Your task to perform on an android device: allow cookies in the chrome app Image 0: 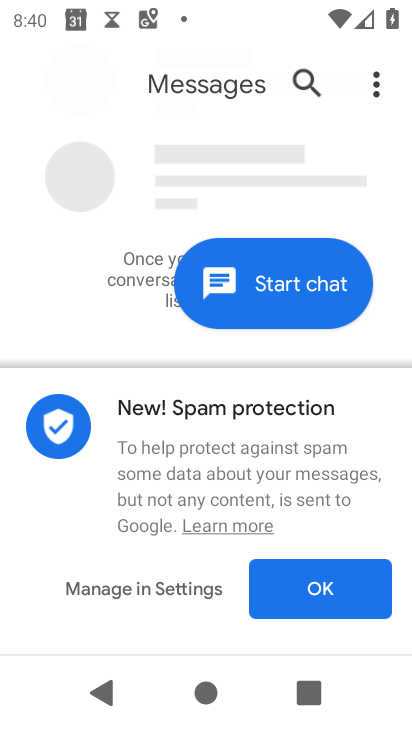
Step 0: press home button
Your task to perform on an android device: allow cookies in the chrome app Image 1: 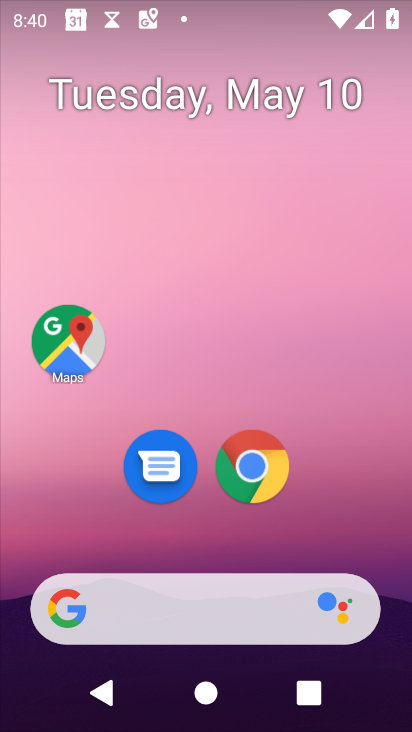
Step 1: click (256, 460)
Your task to perform on an android device: allow cookies in the chrome app Image 2: 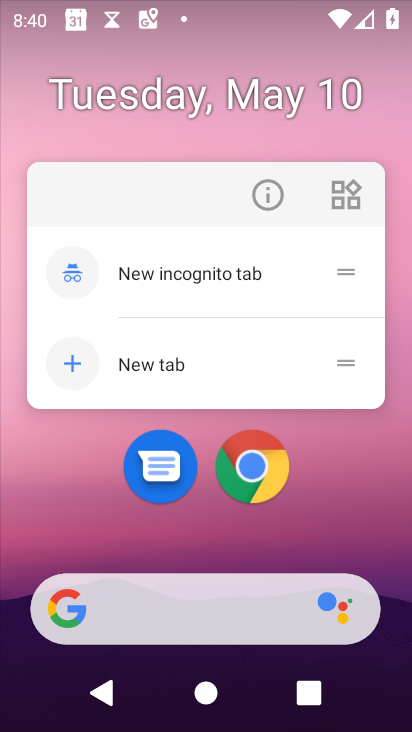
Step 2: click (256, 460)
Your task to perform on an android device: allow cookies in the chrome app Image 3: 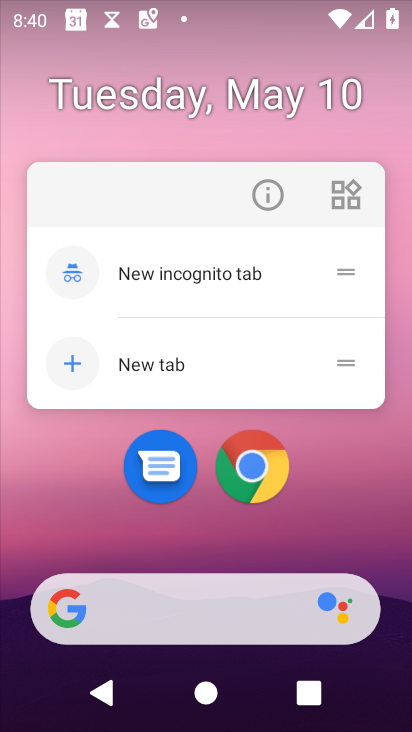
Step 3: click (239, 476)
Your task to perform on an android device: allow cookies in the chrome app Image 4: 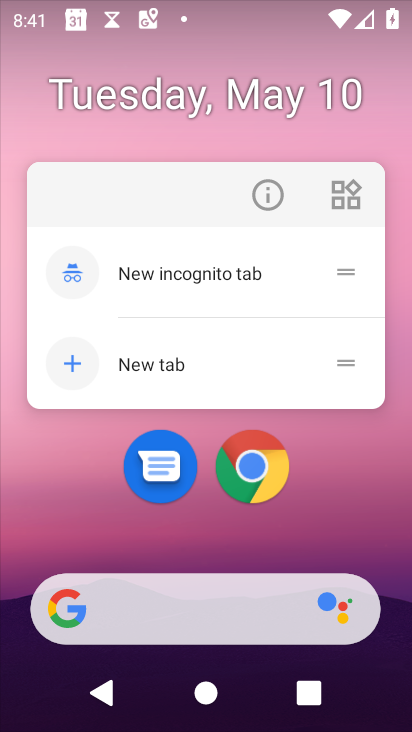
Step 4: click (240, 465)
Your task to perform on an android device: allow cookies in the chrome app Image 5: 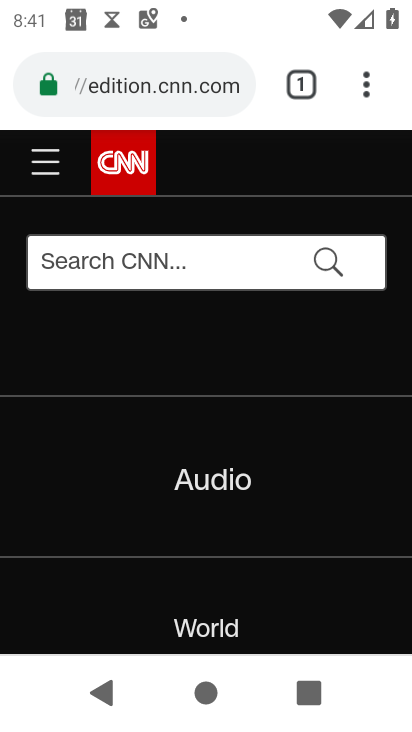
Step 5: click (366, 87)
Your task to perform on an android device: allow cookies in the chrome app Image 6: 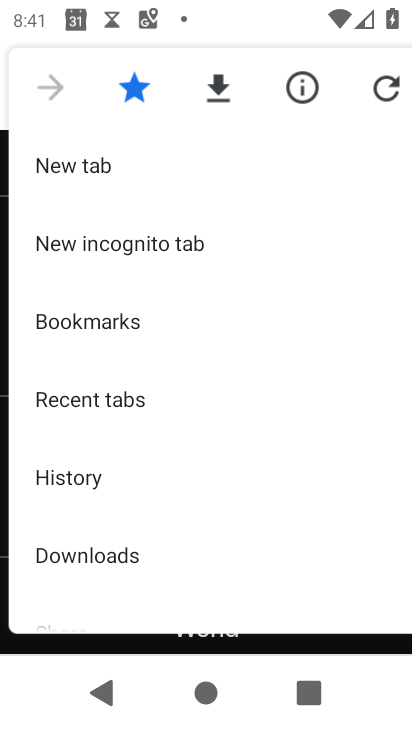
Step 6: drag from (164, 531) to (165, 398)
Your task to perform on an android device: allow cookies in the chrome app Image 7: 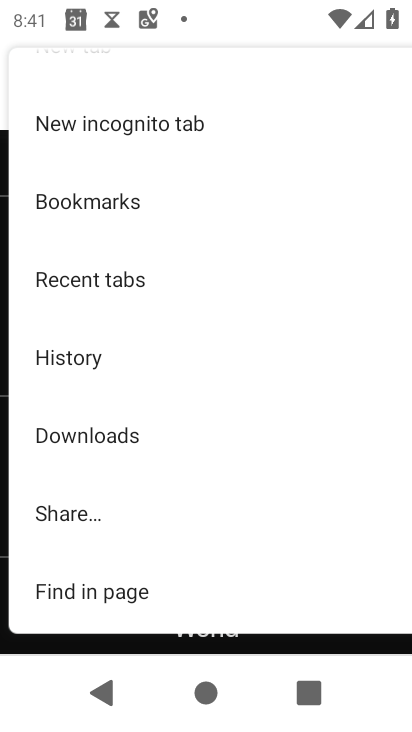
Step 7: drag from (167, 516) to (154, 429)
Your task to perform on an android device: allow cookies in the chrome app Image 8: 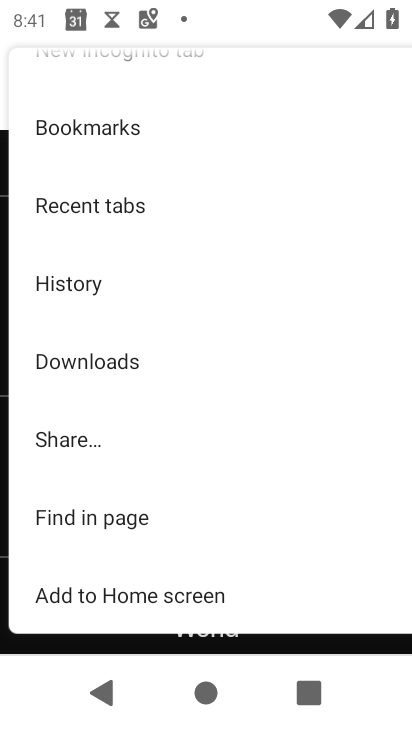
Step 8: drag from (155, 507) to (150, 424)
Your task to perform on an android device: allow cookies in the chrome app Image 9: 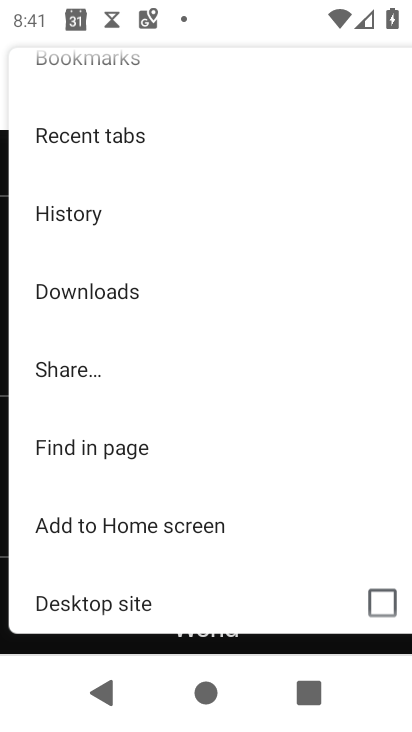
Step 9: drag from (111, 513) to (95, 413)
Your task to perform on an android device: allow cookies in the chrome app Image 10: 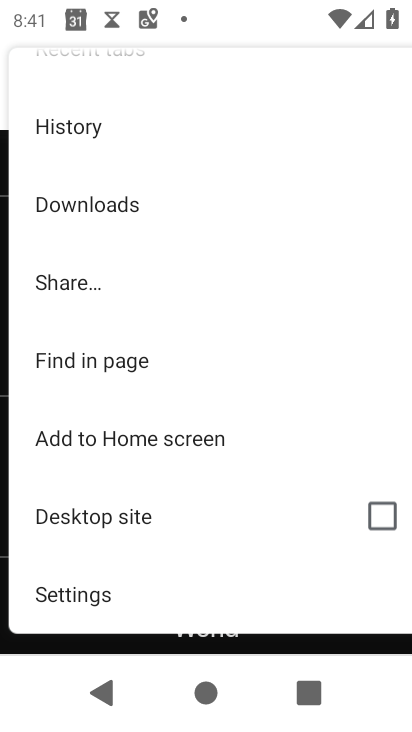
Step 10: click (109, 576)
Your task to perform on an android device: allow cookies in the chrome app Image 11: 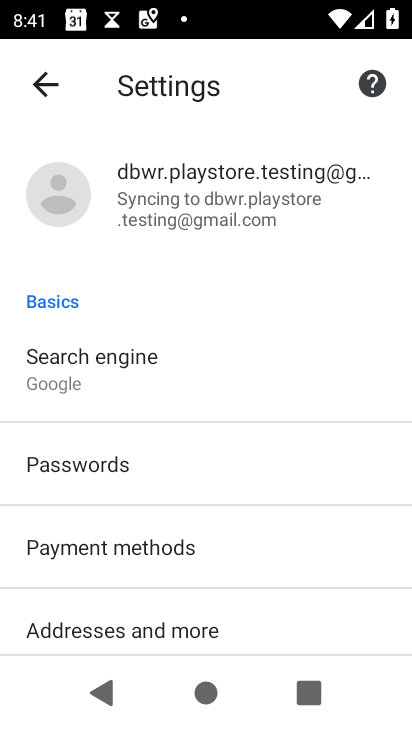
Step 11: drag from (109, 585) to (140, 462)
Your task to perform on an android device: allow cookies in the chrome app Image 12: 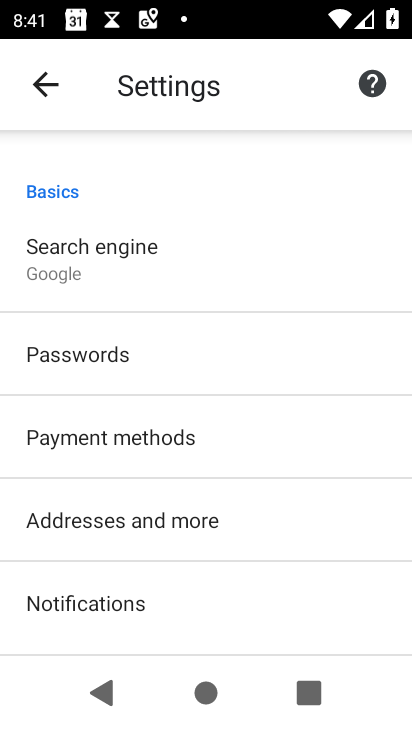
Step 12: drag from (143, 581) to (126, 467)
Your task to perform on an android device: allow cookies in the chrome app Image 13: 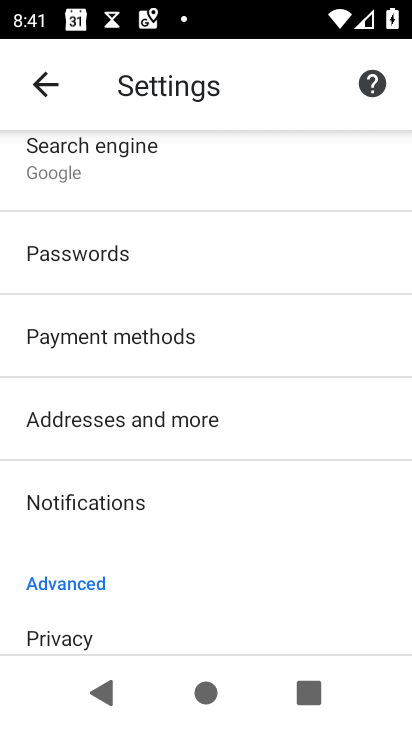
Step 13: drag from (143, 563) to (148, 471)
Your task to perform on an android device: allow cookies in the chrome app Image 14: 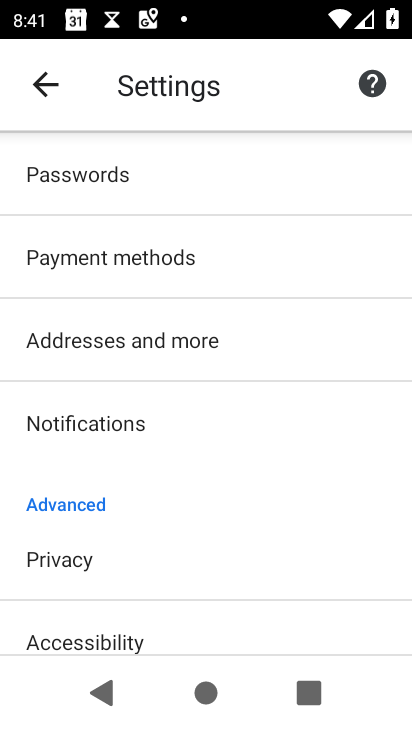
Step 14: drag from (156, 554) to (155, 486)
Your task to perform on an android device: allow cookies in the chrome app Image 15: 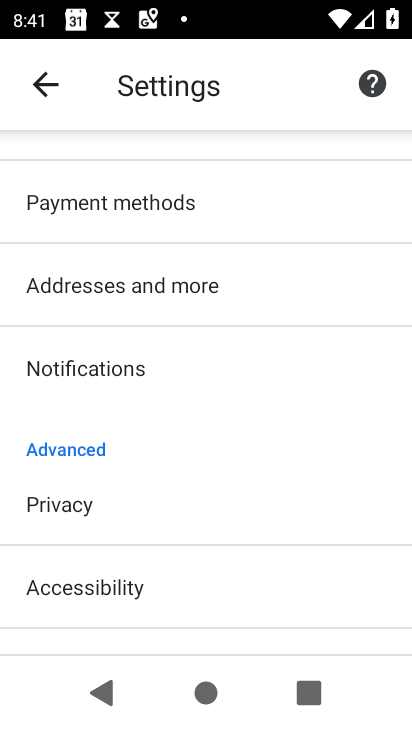
Step 15: drag from (151, 579) to (160, 488)
Your task to perform on an android device: allow cookies in the chrome app Image 16: 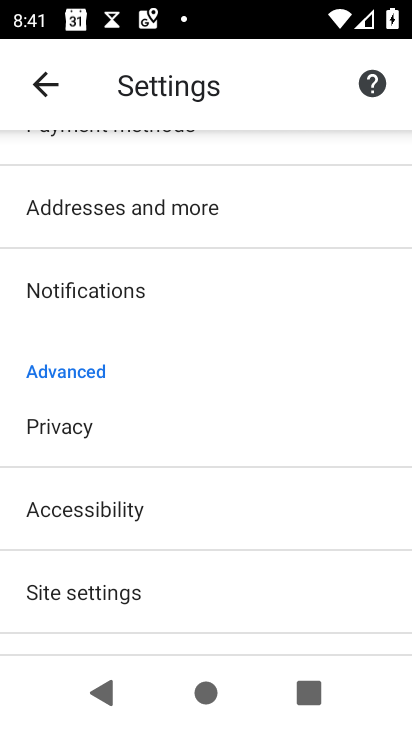
Step 16: click (138, 583)
Your task to perform on an android device: allow cookies in the chrome app Image 17: 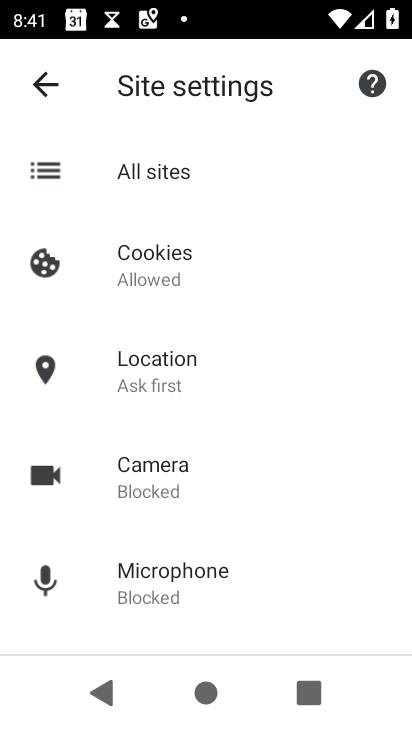
Step 17: click (192, 254)
Your task to perform on an android device: allow cookies in the chrome app Image 18: 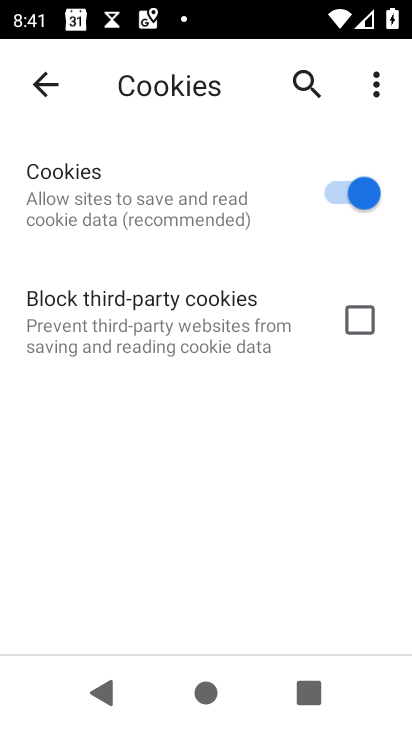
Step 18: task complete